Your task to perform on an android device: turn on javascript in the chrome app Image 0: 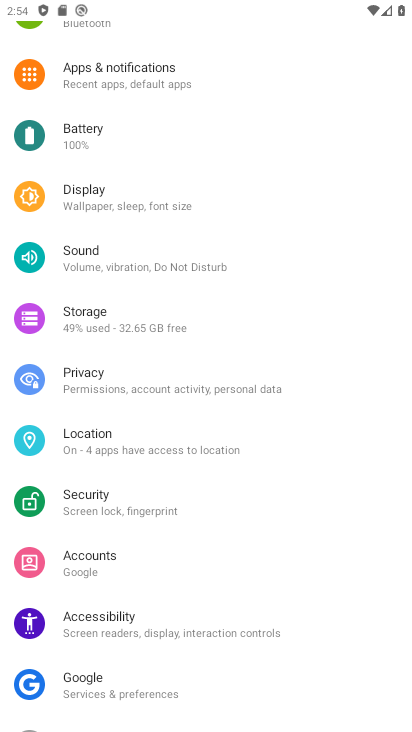
Step 0: press back button
Your task to perform on an android device: turn on javascript in the chrome app Image 1: 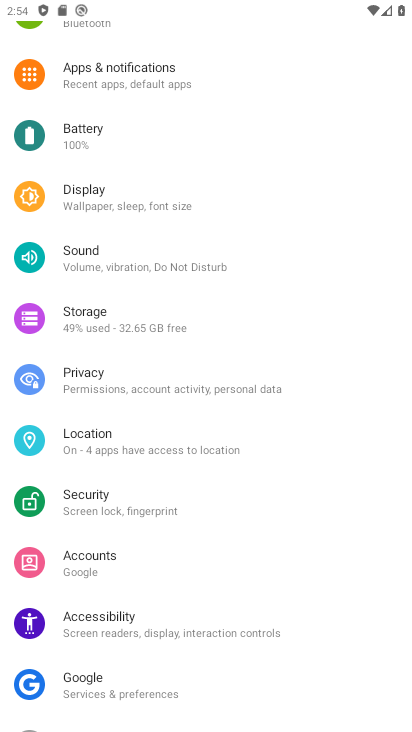
Step 1: press back button
Your task to perform on an android device: turn on javascript in the chrome app Image 2: 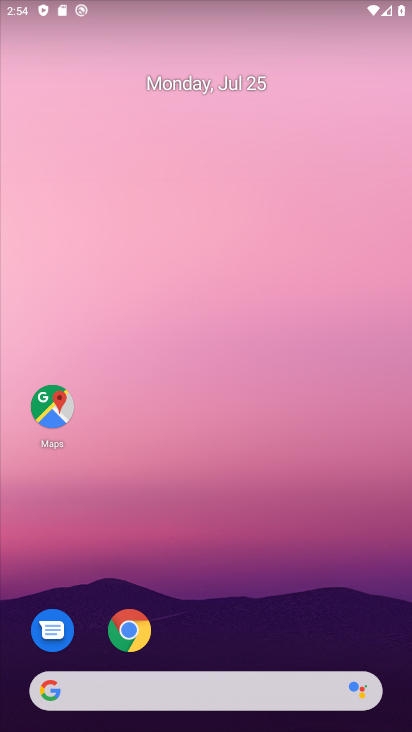
Step 2: click (237, 227)
Your task to perform on an android device: turn on javascript in the chrome app Image 3: 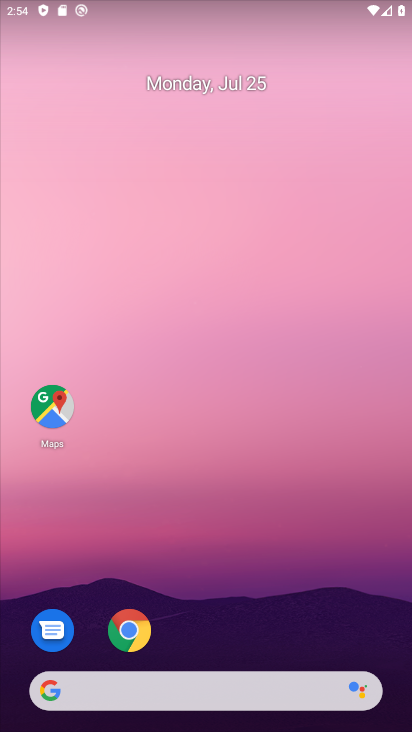
Step 3: drag from (281, 536) to (281, 316)
Your task to perform on an android device: turn on javascript in the chrome app Image 4: 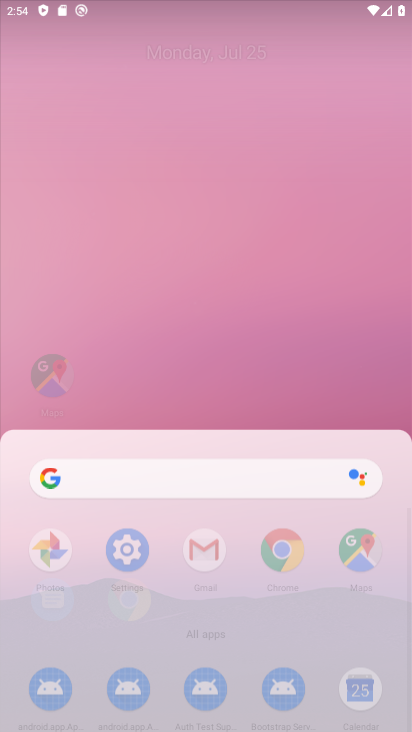
Step 4: drag from (202, 395) to (201, 192)
Your task to perform on an android device: turn on javascript in the chrome app Image 5: 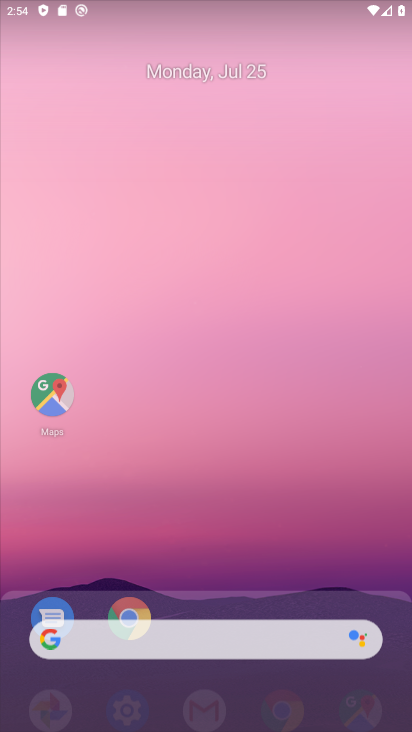
Step 5: click (186, 144)
Your task to perform on an android device: turn on javascript in the chrome app Image 6: 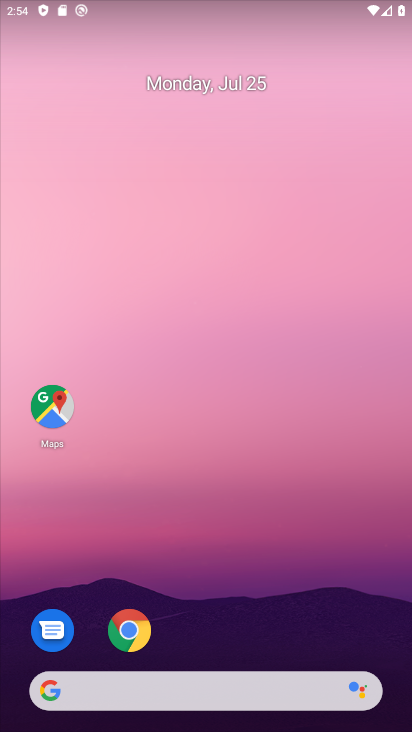
Step 6: drag from (205, 318) to (222, 127)
Your task to perform on an android device: turn on javascript in the chrome app Image 7: 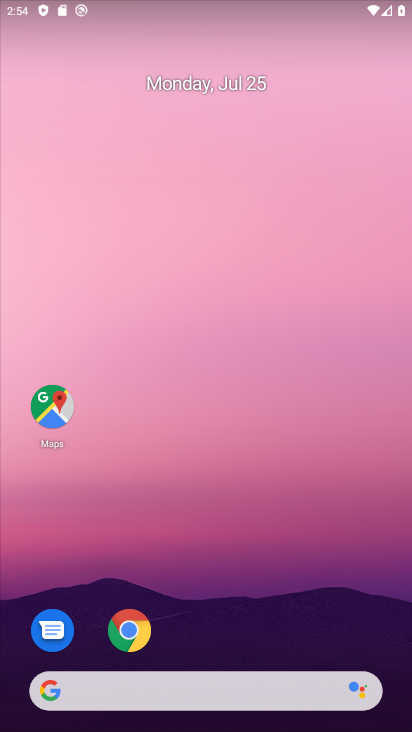
Step 7: drag from (209, 521) to (241, 69)
Your task to perform on an android device: turn on javascript in the chrome app Image 8: 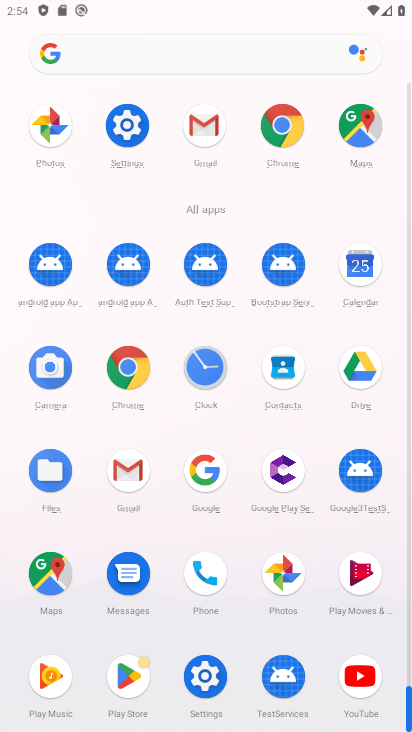
Step 8: click (182, 59)
Your task to perform on an android device: turn on javascript in the chrome app Image 9: 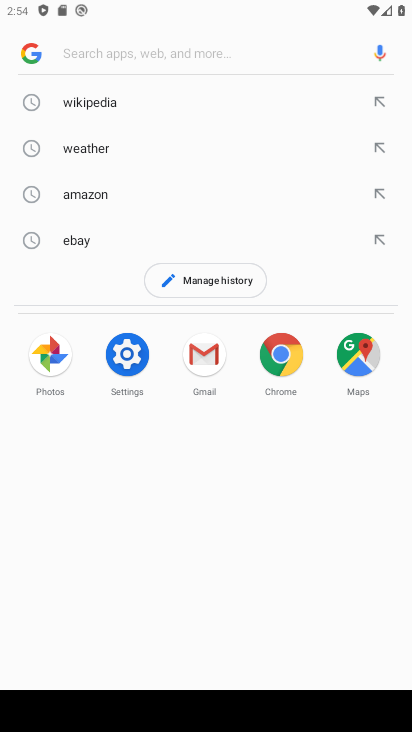
Step 9: click (128, 381)
Your task to perform on an android device: turn on javascript in the chrome app Image 10: 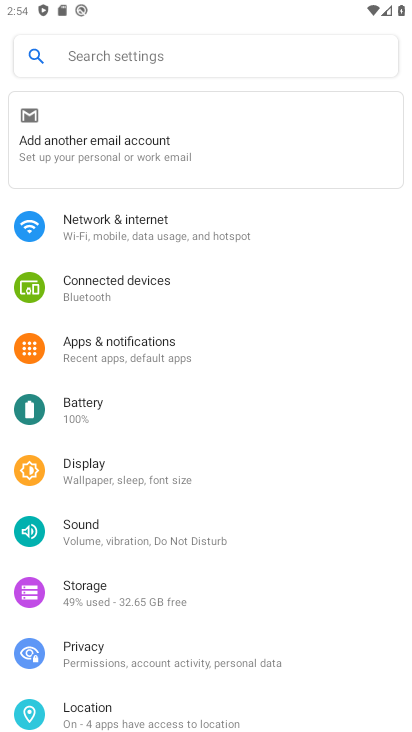
Step 10: drag from (120, 574) to (156, 266)
Your task to perform on an android device: turn on javascript in the chrome app Image 11: 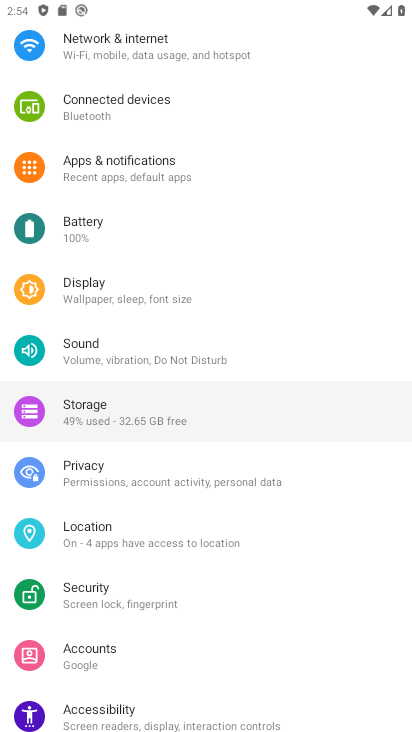
Step 11: drag from (131, 530) to (143, 312)
Your task to perform on an android device: turn on javascript in the chrome app Image 12: 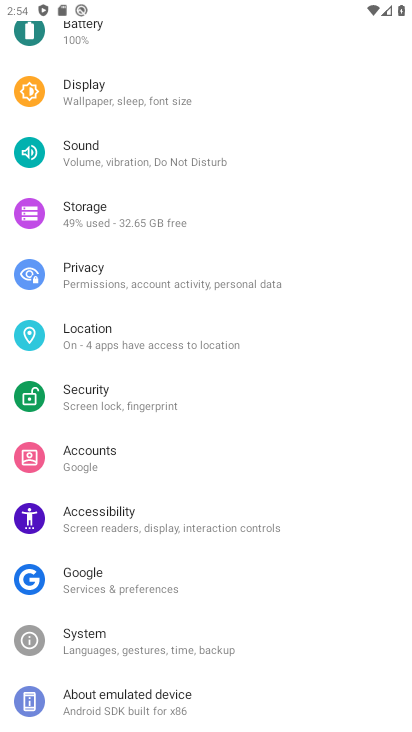
Step 12: drag from (187, 415) to (194, 382)
Your task to perform on an android device: turn on javascript in the chrome app Image 13: 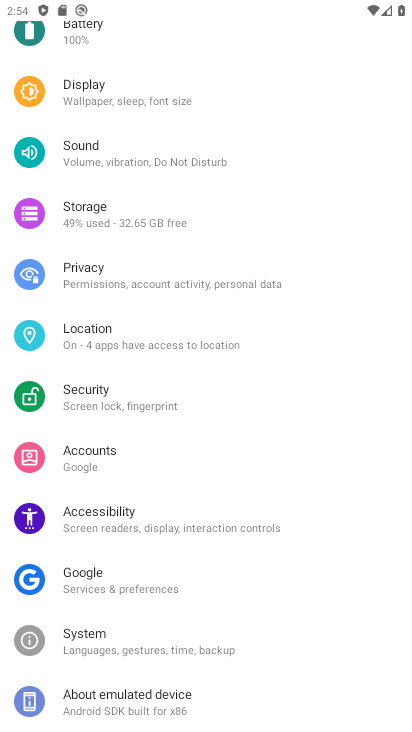
Step 13: press back button
Your task to perform on an android device: turn on javascript in the chrome app Image 14: 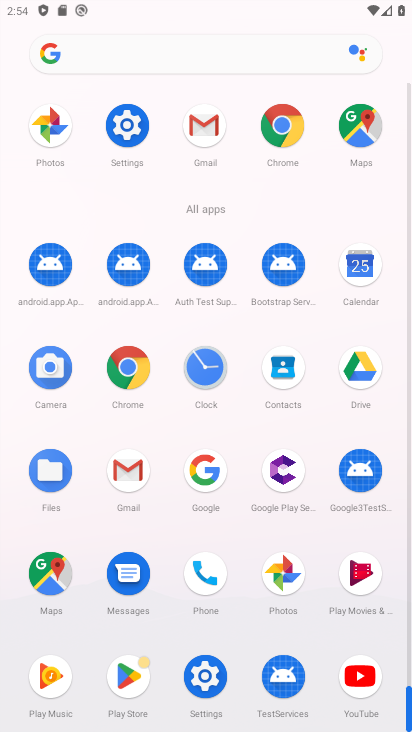
Step 14: click (286, 121)
Your task to perform on an android device: turn on javascript in the chrome app Image 15: 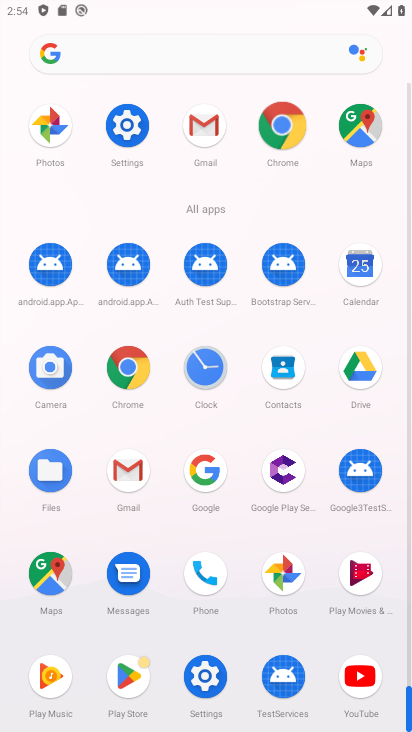
Step 15: click (289, 120)
Your task to perform on an android device: turn on javascript in the chrome app Image 16: 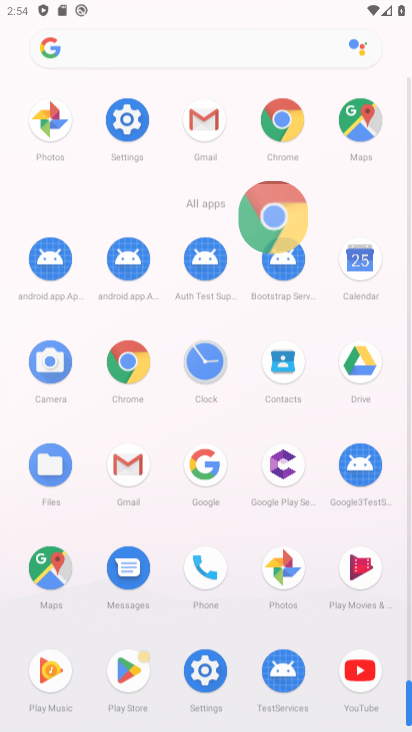
Step 16: click (292, 129)
Your task to perform on an android device: turn on javascript in the chrome app Image 17: 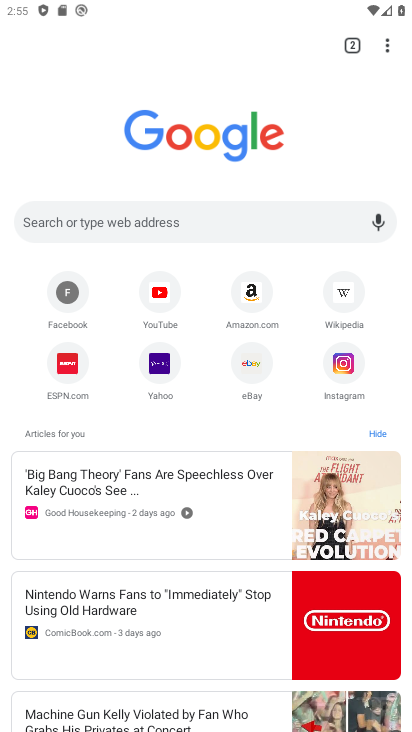
Step 17: drag from (391, 46) to (214, 383)
Your task to perform on an android device: turn on javascript in the chrome app Image 18: 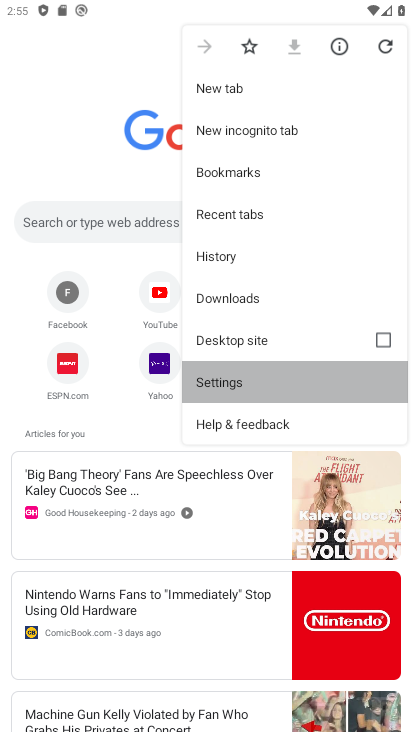
Step 18: click (215, 383)
Your task to perform on an android device: turn on javascript in the chrome app Image 19: 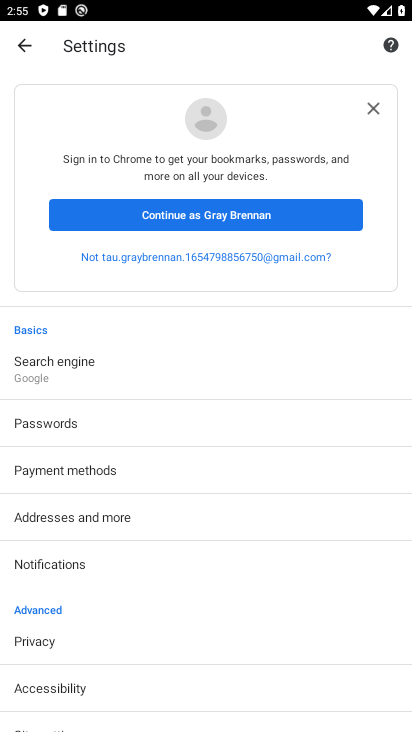
Step 19: drag from (90, 536) to (86, 144)
Your task to perform on an android device: turn on javascript in the chrome app Image 20: 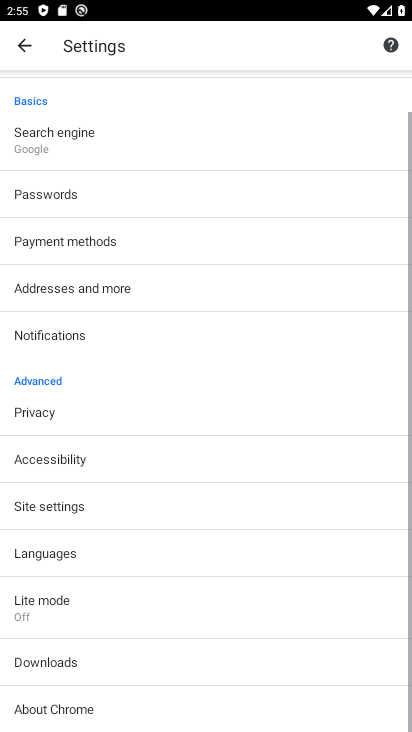
Step 20: drag from (124, 518) to (135, 76)
Your task to perform on an android device: turn on javascript in the chrome app Image 21: 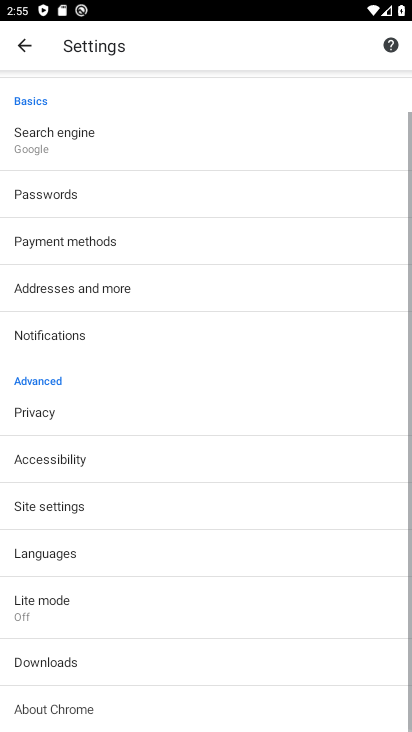
Step 21: drag from (143, 468) to (164, 203)
Your task to perform on an android device: turn on javascript in the chrome app Image 22: 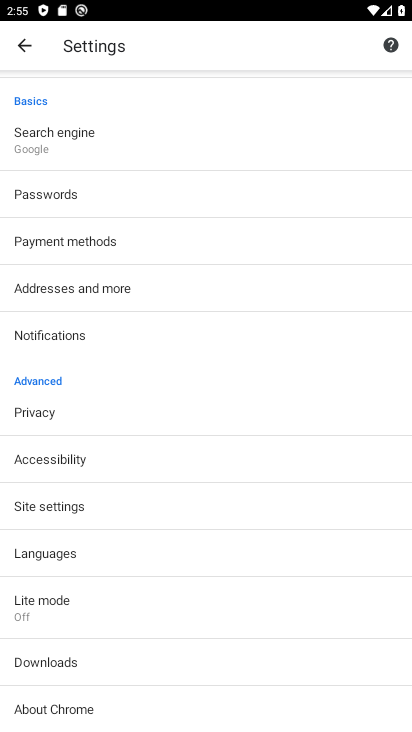
Step 22: click (39, 506)
Your task to perform on an android device: turn on javascript in the chrome app Image 23: 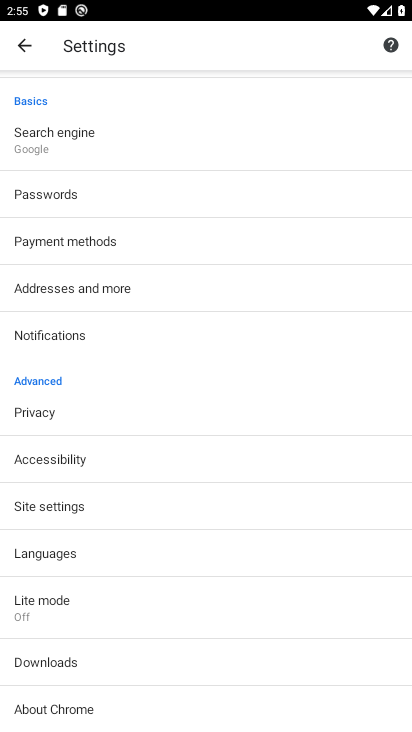
Step 23: click (42, 505)
Your task to perform on an android device: turn on javascript in the chrome app Image 24: 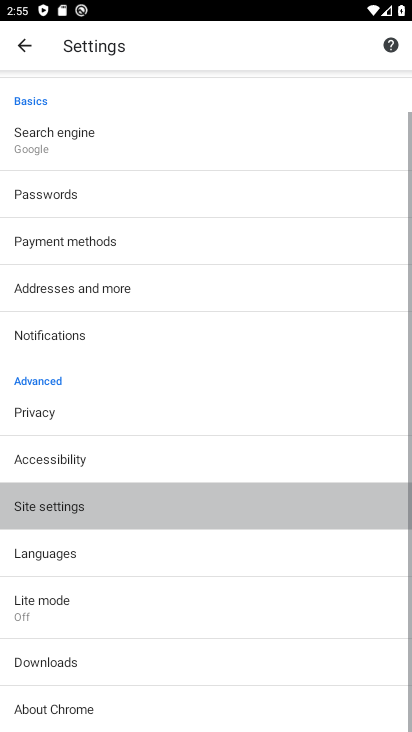
Step 24: click (44, 505)
Your task to perform on an android device: turn on javascript in the chrome app Image 25: 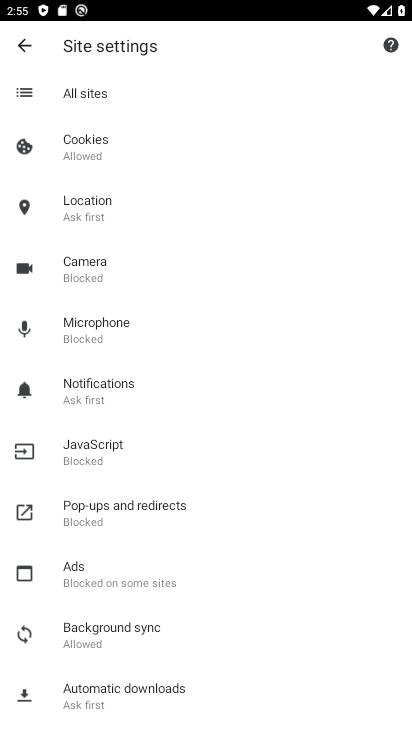
Step 25: click (80, 445)
Your task to perform on an android device: turn on javascript in the chrome app Image 26: 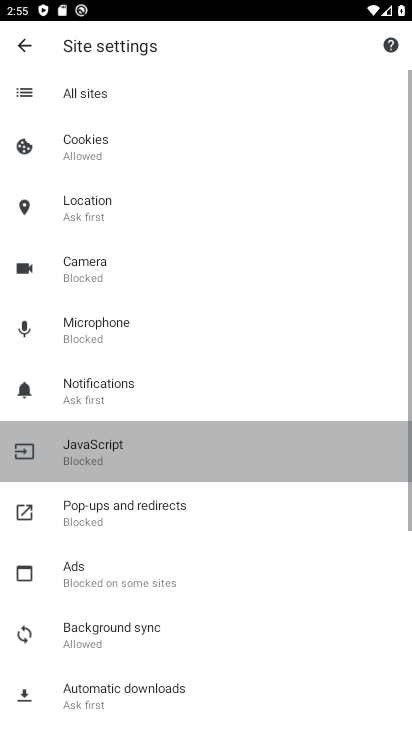
Step 26: click (80, 444)
Your task to perform on an android device: turn on javascript in the chrome app Image 27: 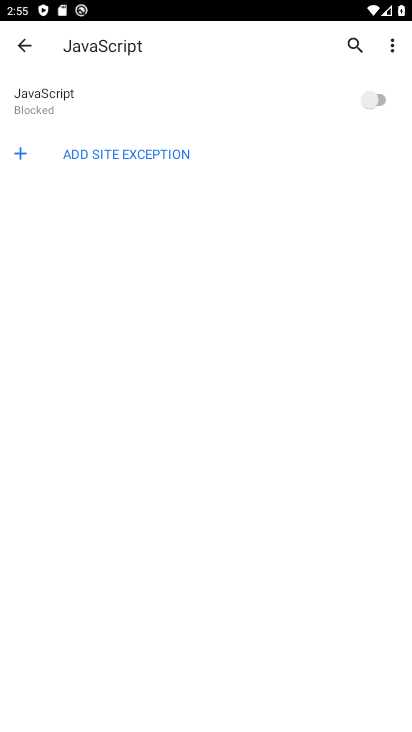
Step 27: task complete